Your task to perform on an android device: Show me the alarms in the clock app Image 0: 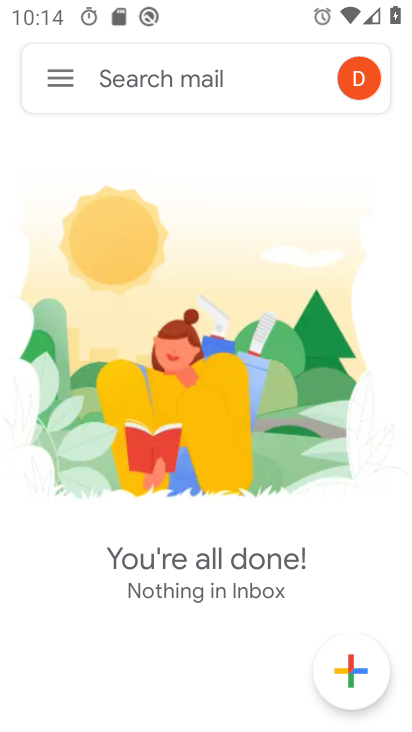
Step 0: press home button
Your task to perform on an android device: Show me the alarms in the clock app Image 1: 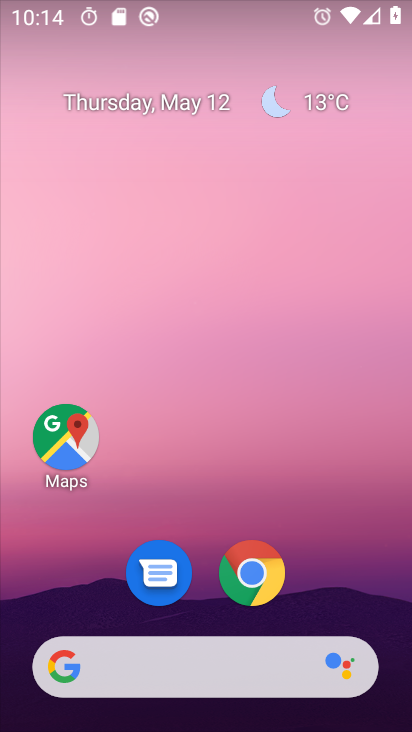
Step 1: click (359, 267)
Your task to perform on an android device: Show me the alarms in the clock app Image 2: 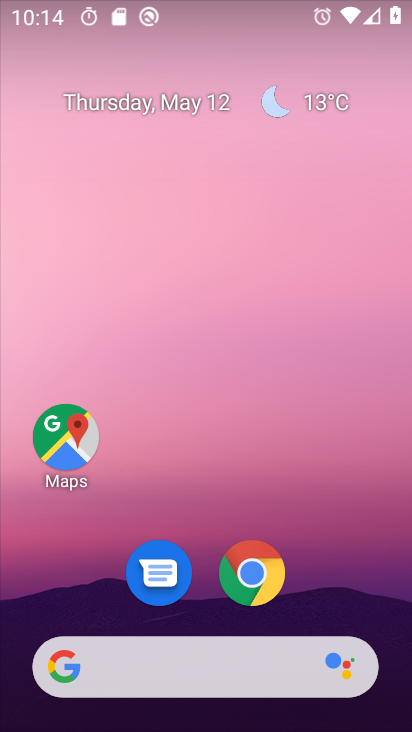
Step 2: drag from (406, 649) to (377, 296)
Your task to perform on an android device: Show me the alarms in the clock app Image 3: 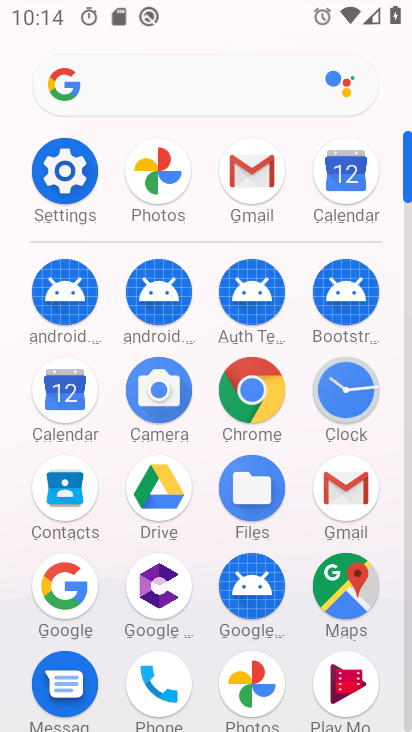
Step 3: click (333, 402)
Your task to perform on an android device: Show me the alarms in the clock app Image 4: 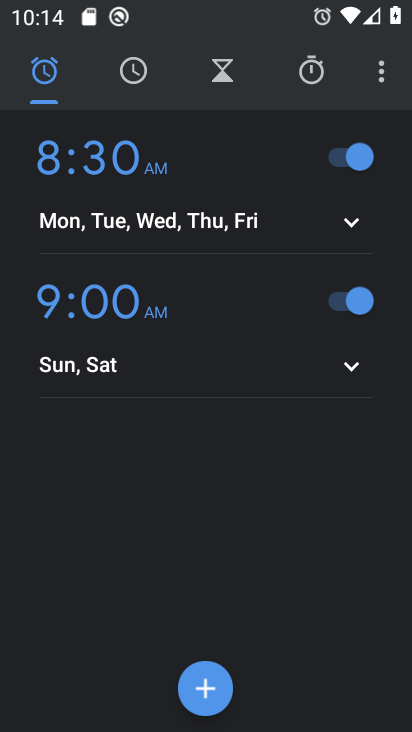
Step 4: task complete